Your task to perform on an android device: Find coffee shops on Maps Image 0: 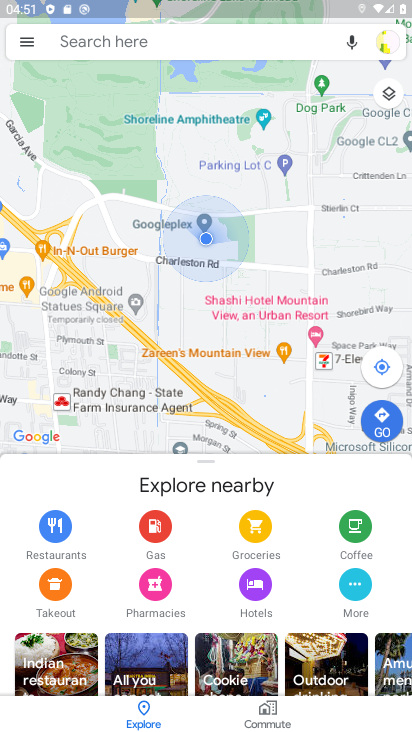
Step 0: click (228, 42)
Your task to perform on an android device: Find coffee shops on Maps Image 1: 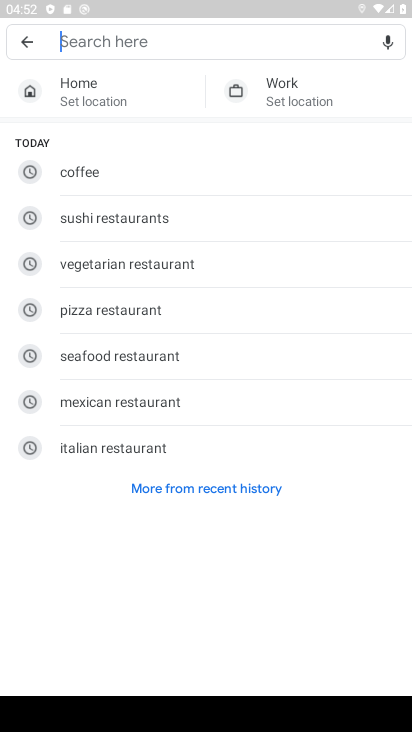
Step 1: type "coffee  shops"
Your task to perform on an android device: Find coffee shops on Maps Image 2: 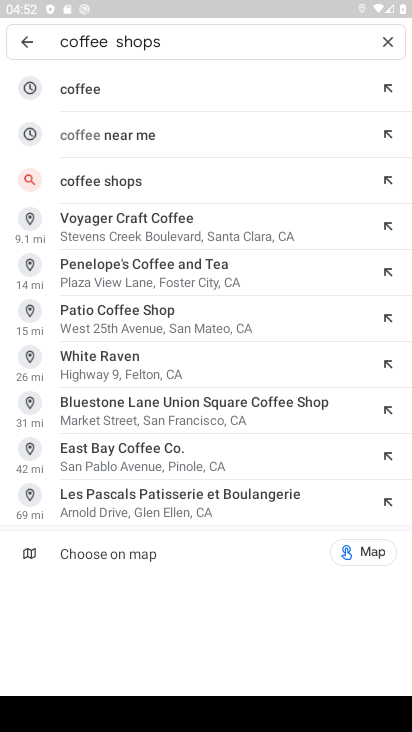
Step 2: click (139, 178)
Your task to perform on an android device: Find coffee shops on Maps Image 3: 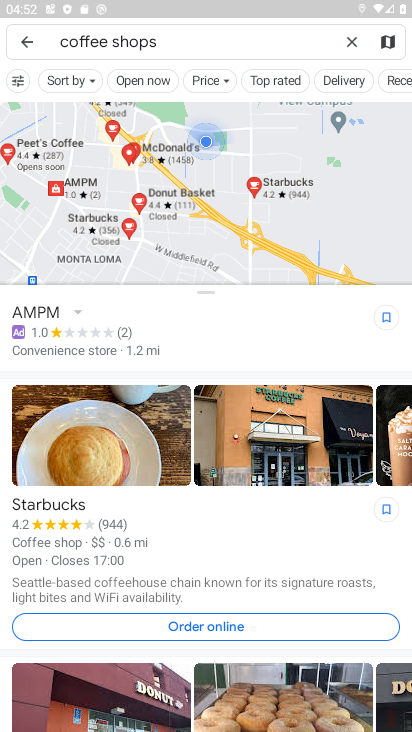
Step 3: task complete